Your task to perform on an android device: When is my next meeting? Image 0: 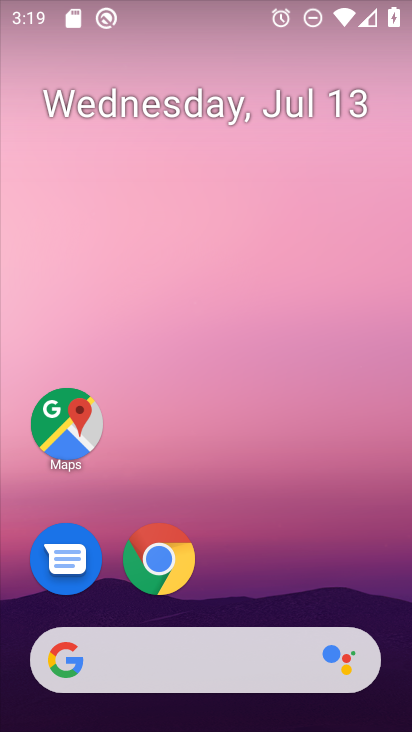
Step 0: drag from (326, 563) to (355, 184)
Your task to perform on an android device: When is my next meeting? Image 1: 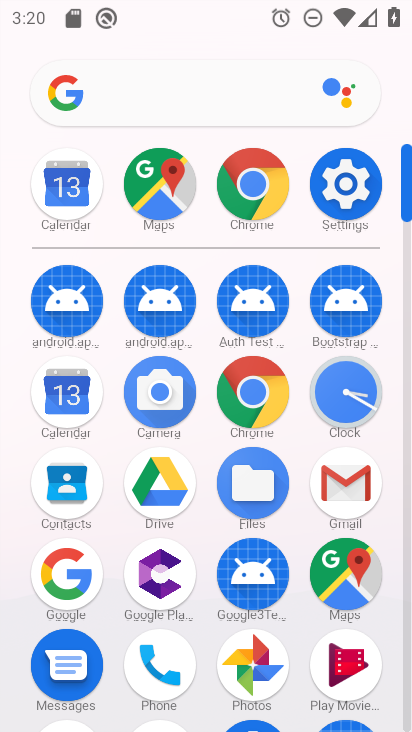
Step 1: click (71, 384)
Your task to perform on an android device: When is my next meeting? Image 2: 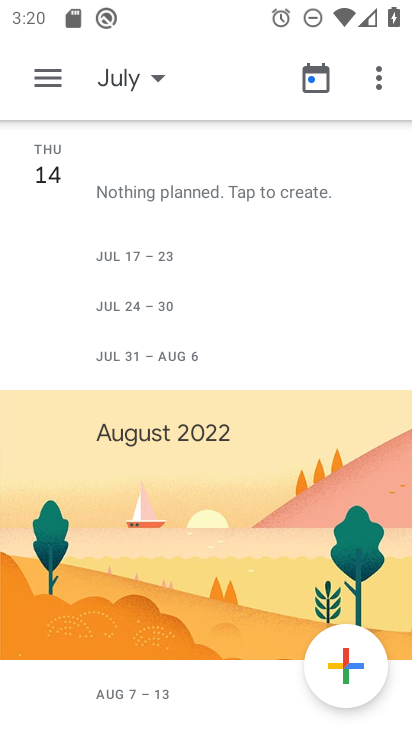
Step 2: task complete